Your task to perform on an android device: Open notification settings Image 0: 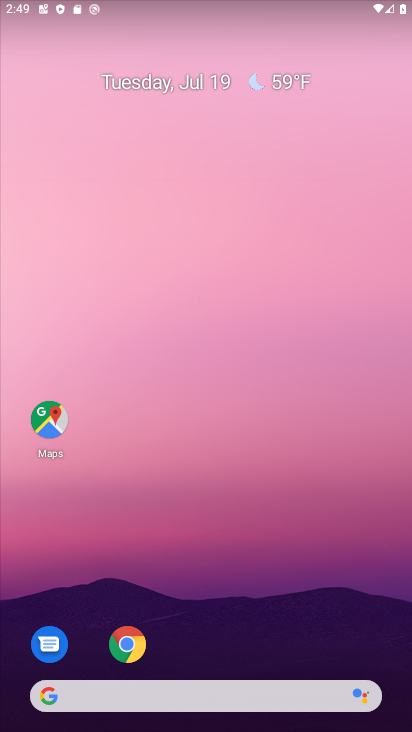
Step 0: drag from (284, 598) to (233, 247)
Your task to perform on an android device: Open notification settings Image 1: 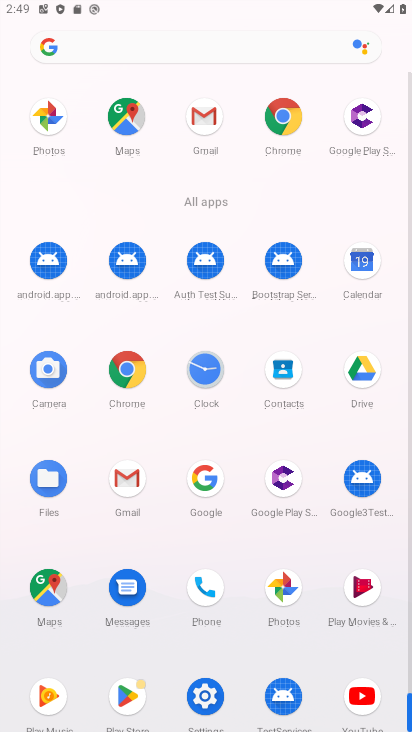
Step 1: click (199, 683)
Your task to perform on an android device: Open notification settings Image 2: 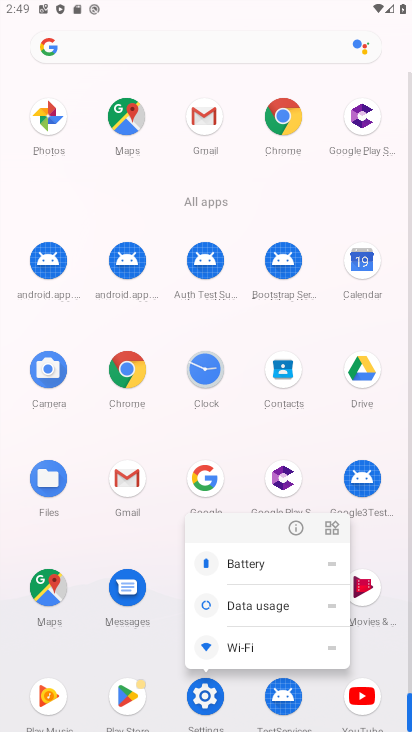
Step 2: click (193, 694)
Your task to perform on an android device: Open notification settings Image 3: 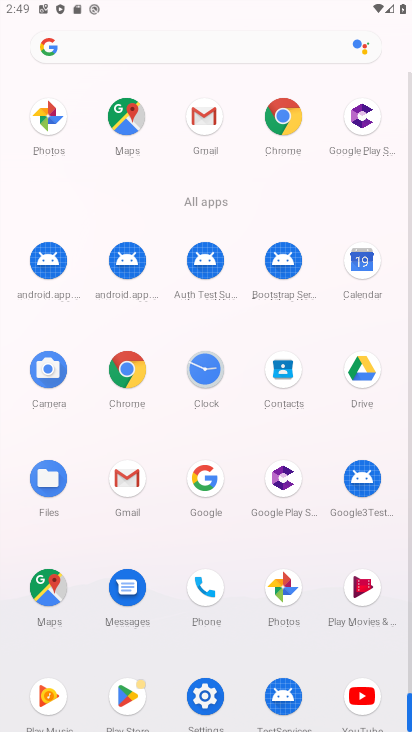
Step 3: click (205, 700)
Your task to perform on an android device: Open notification settings Image 4: 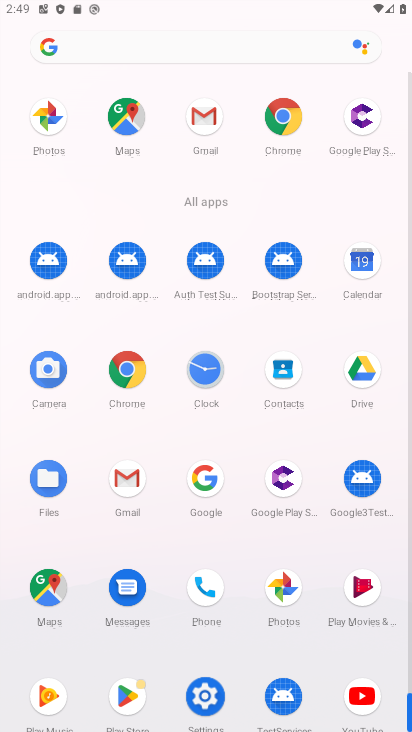
Step 4: click (205, 700)
Your task to perform on an android device: Open notification settings Image 5: 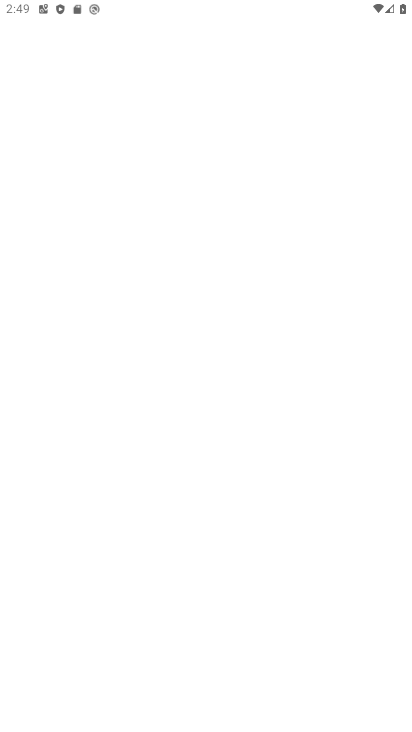
Step 5: click (205, 700)
Your task to perform on an android device: Open notification settings Image 6: 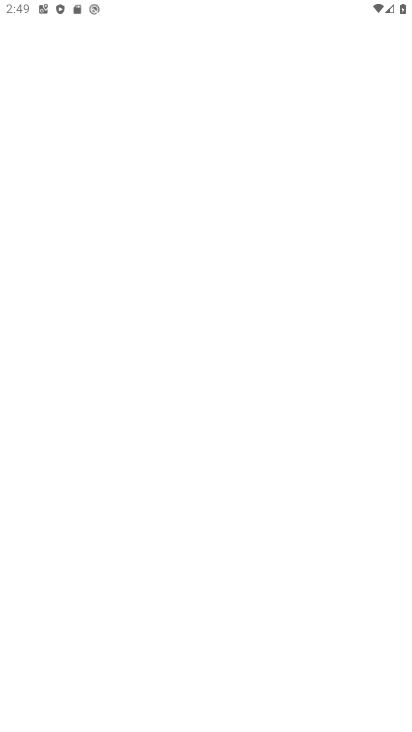
Step 6: click (205, 693)
Your task to perform on an android device: Open notification settings Image 7: 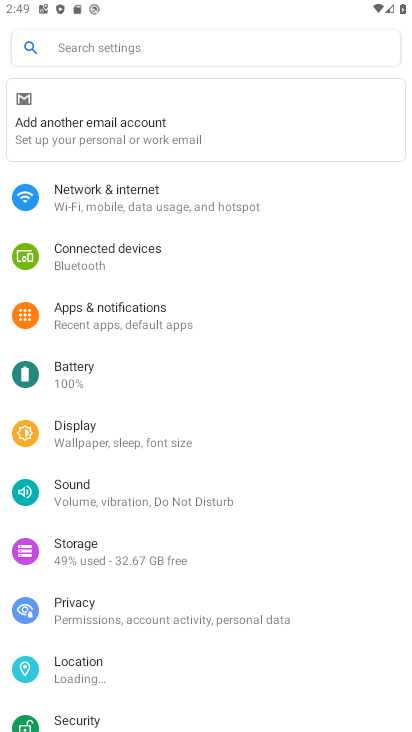
Step 7: click (90, 318)
Your task to perform on an android device: Open notification settings Image 8: 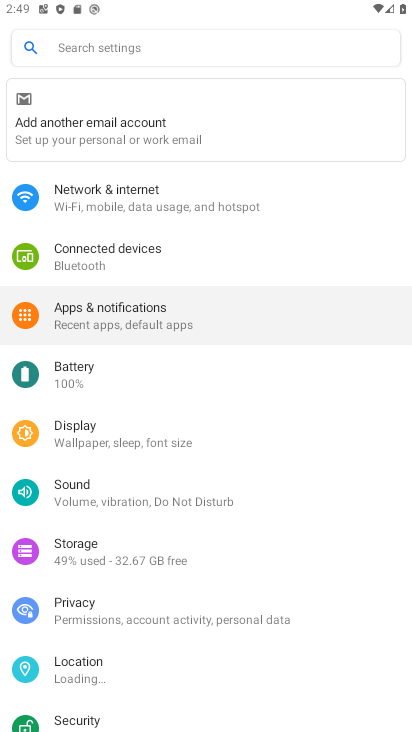
Step 8: click (97, 315)
Your task to perform on an android device: Open notification settings Image 9: 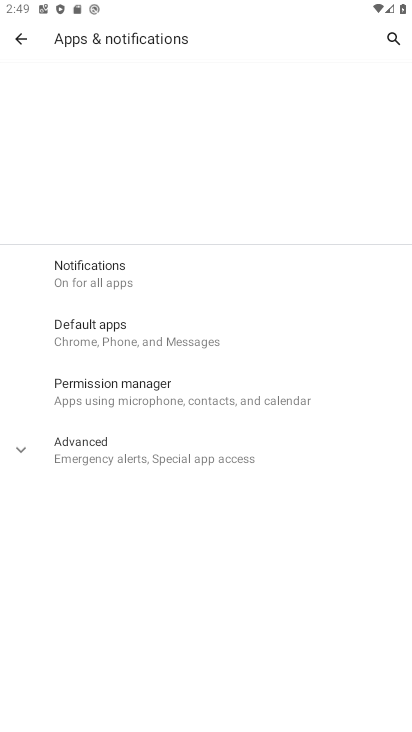
Step 9: click (81, 262)
Your task to perform on an android device: Open notification settings Image 10: 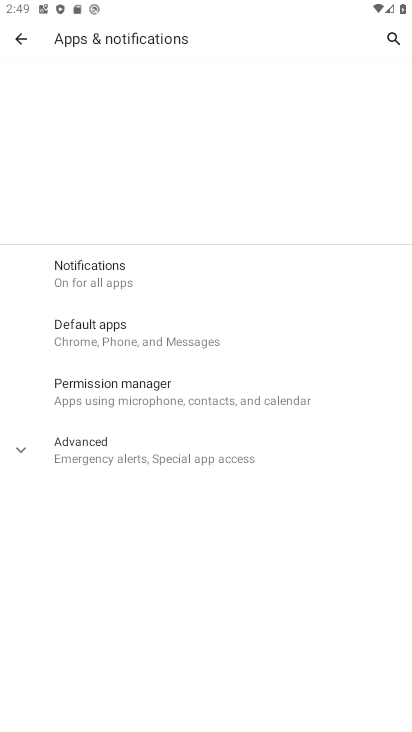
Step 10: click (81, 262)
Your task to perform on an android device: Open notification settings Image 11: 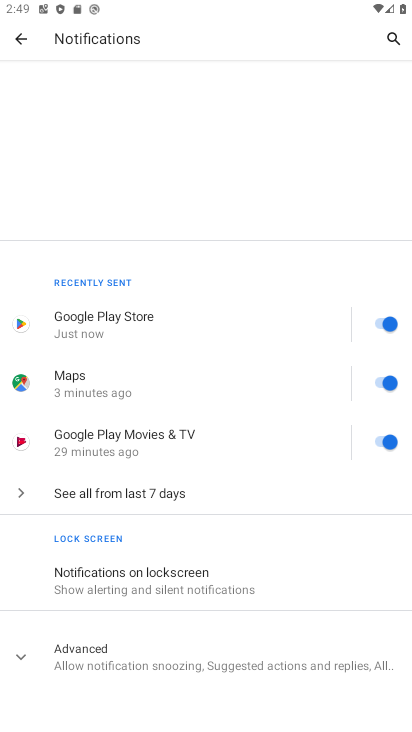
Step 11: task complete